Your task to perform on an android device: turn off sleep mode Image 0: 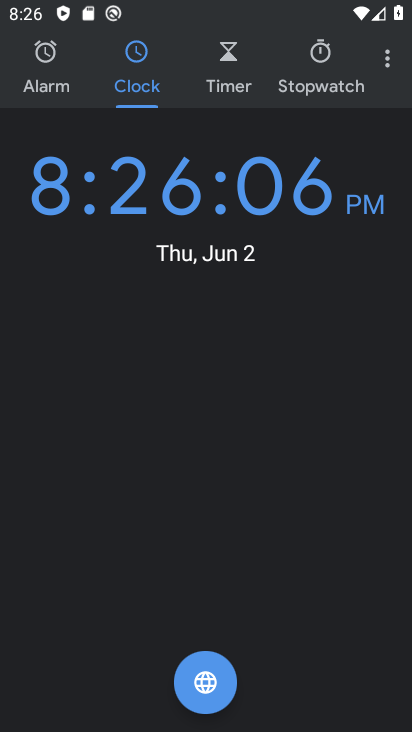
Step 0: press home button
Your task to perform on an android device: turn off sleep mode Image 1: 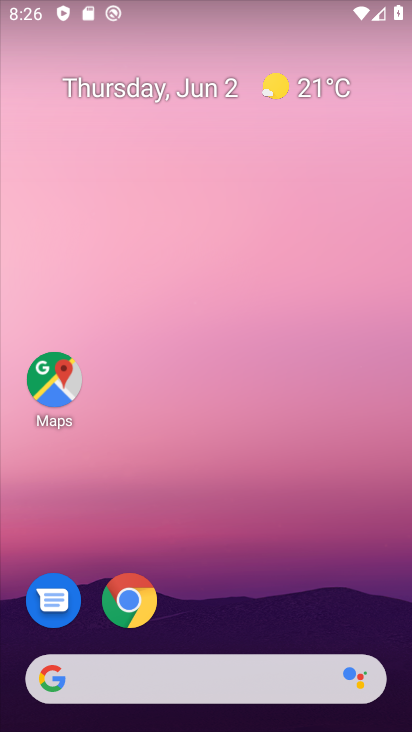
Step 1: drag from (197, 607) to (195, 320)
Your task to perform on an android device: turn off sleep mode Image 2: 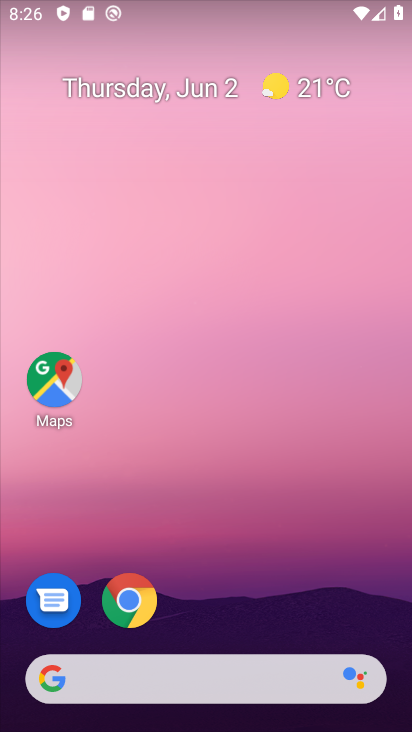
Step 2: drag from (232, 621) to (234, 115)
Your task to perform on an android device: turn off sleep mode Image 3: 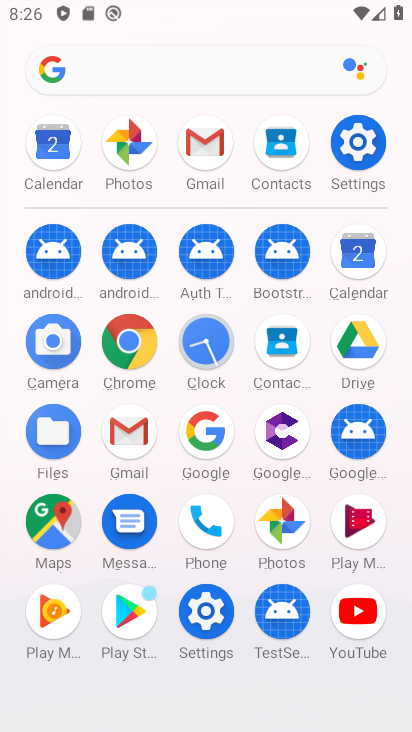
Step 3: click (334, 143)
Your task to perform on an android device: turn off sleep mode Image 4: 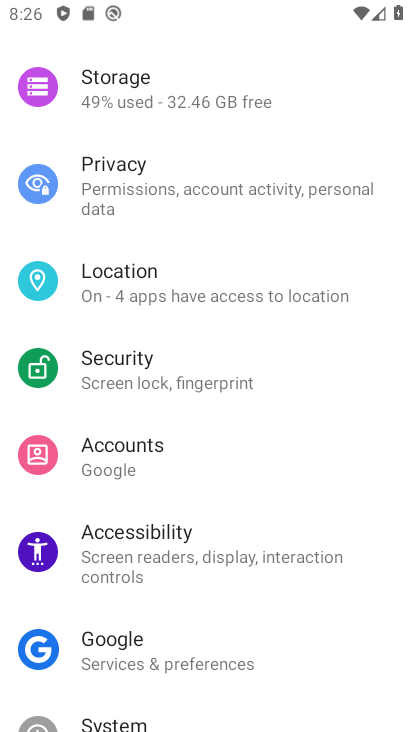
Step 4: drag from (163, 125) to (170, 382)
Your task to perform on an android device: turn off sleep mode Image 5: 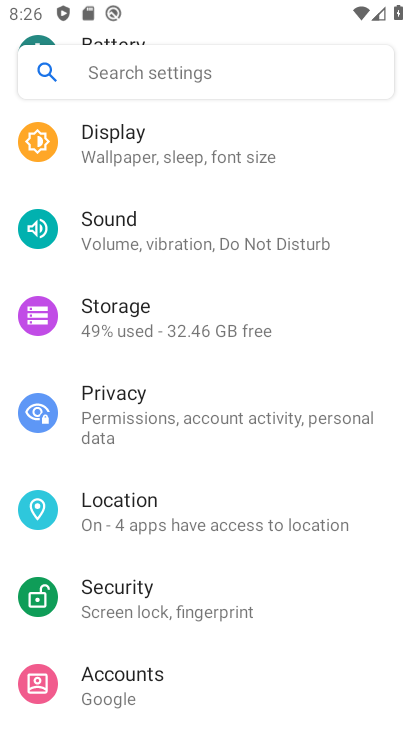
Step 5: click (155, 159)
Your task to perform on an android device: turn off sleep mode Image 6: 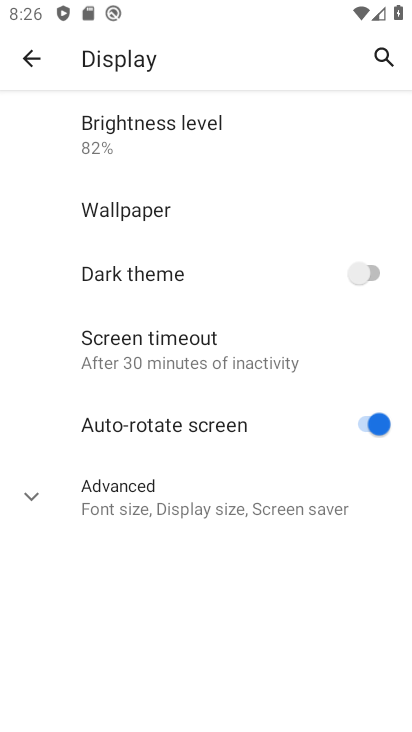
Step 6: click (147, 343)
Your task to perform on an android device: turn off sleep mode Image 7: 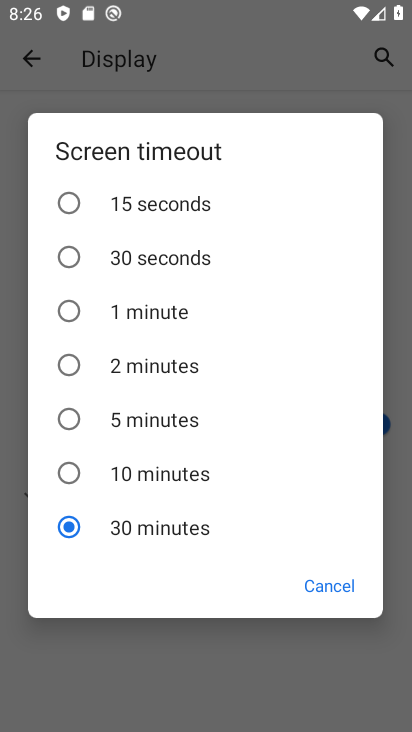
Step 7: click (141, 352)
Your task to perform on an android device: turn off sleep mode Image 8: 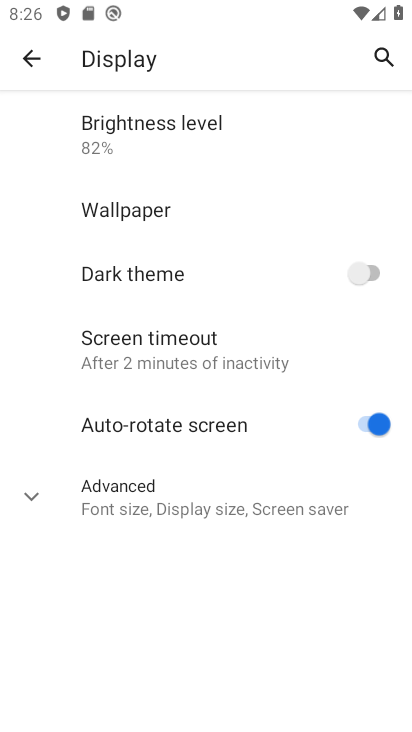
Step 8: task complete